Your task to perform on an android device: turn pop-ups on in chrome Image 0: 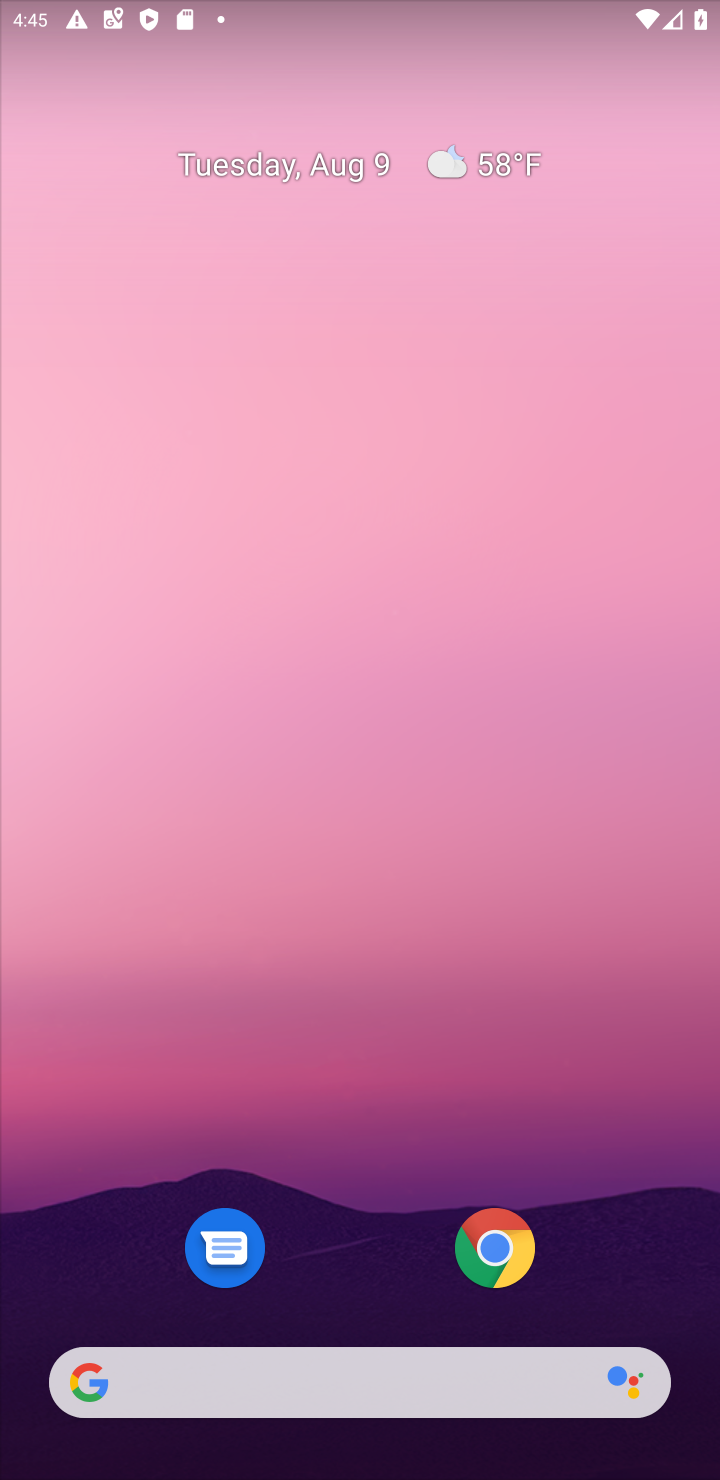
Step 0: click (328, 28)
Your task to perform on an android device: turn pop-ups on in chrome Image 1: 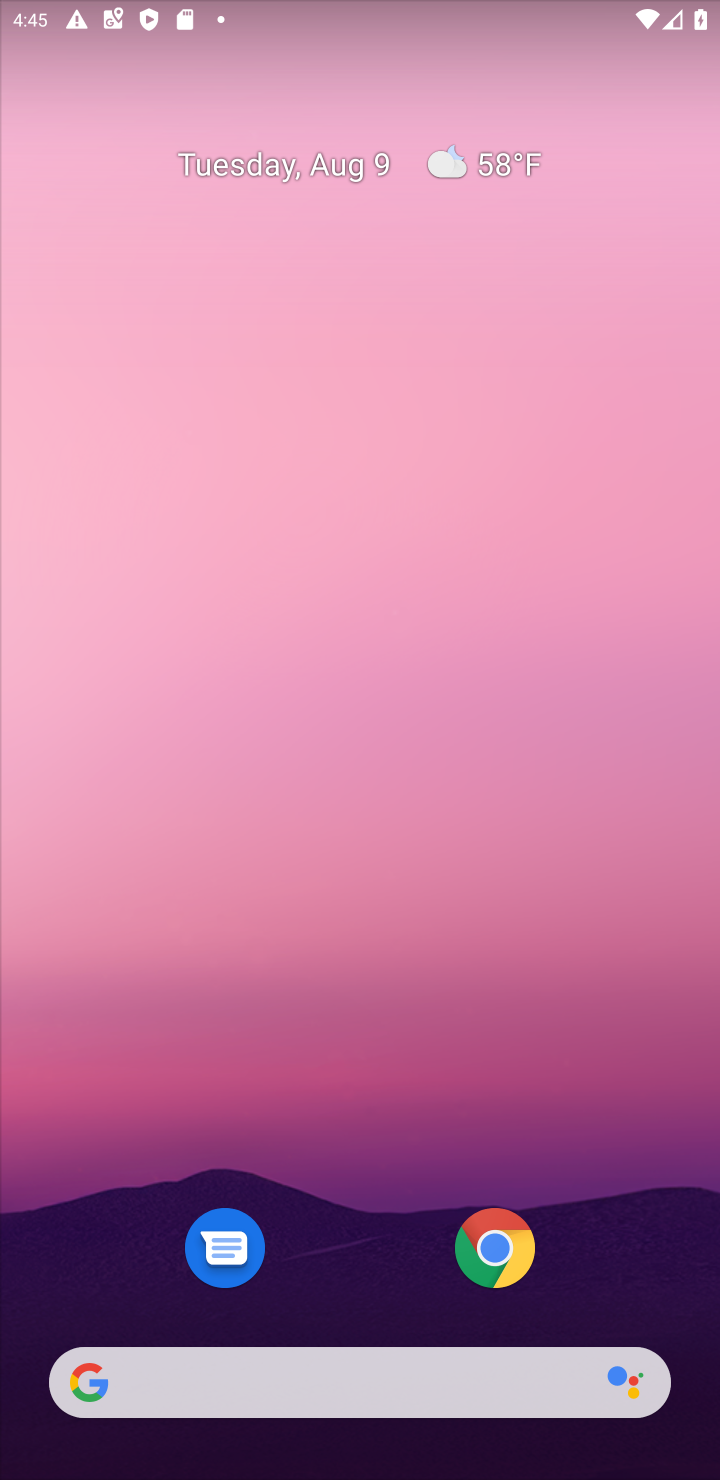
Step 1: drag from (343, 870) to (283, 116)
Your task to perform on an android device: turn pop-ups on in chrome Image 2: 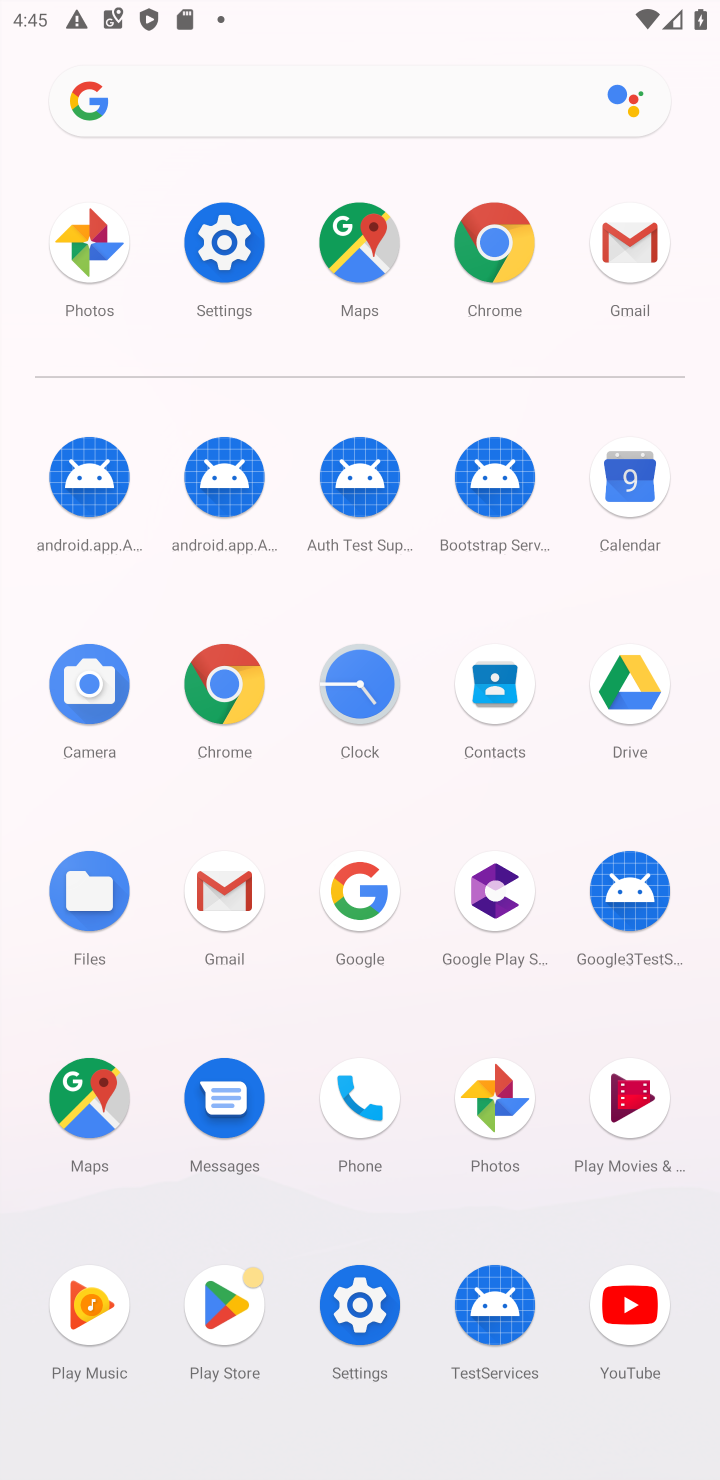
Step 2: click (231, 676)
Your task to perform on an android device: turn pop-ups on in chrome Image 3: 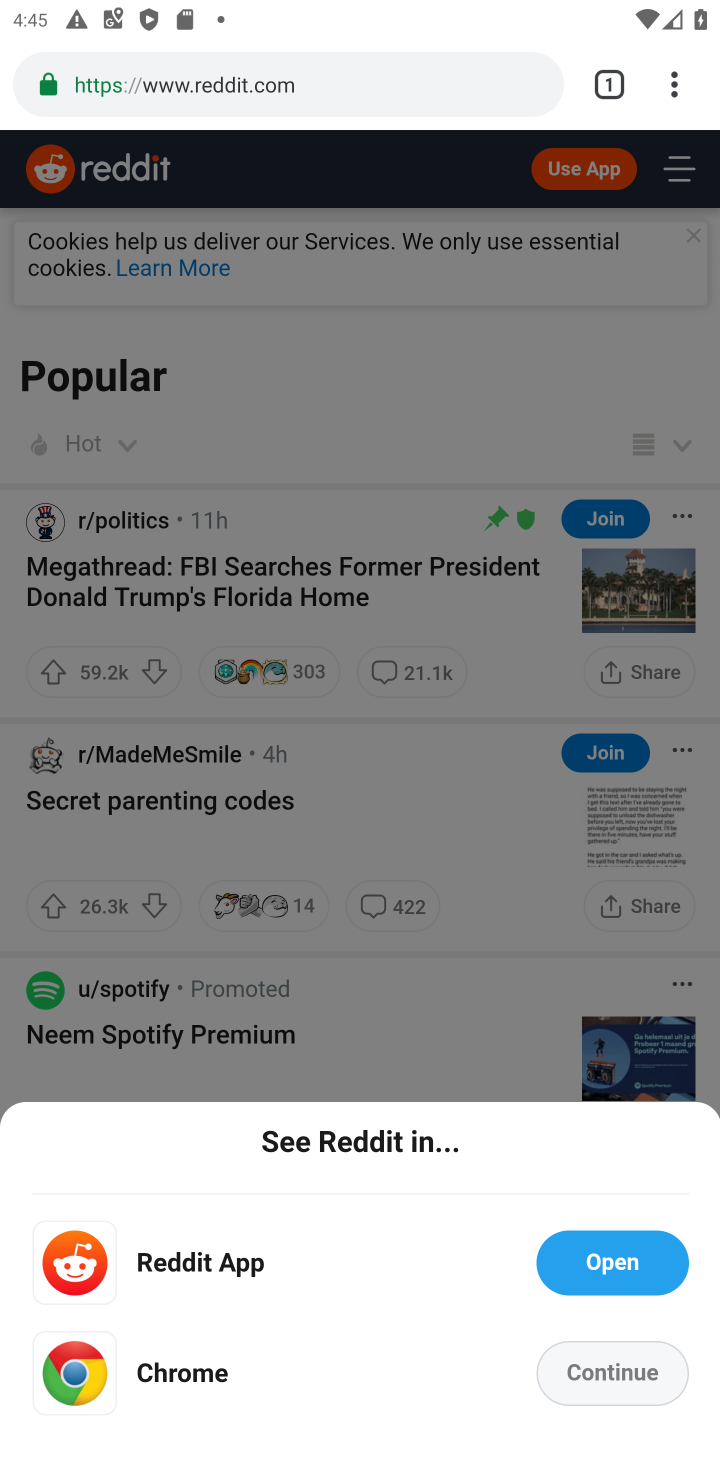
Step 3: drag from (680, 82) to (380, 1107)
Your task to perform on an android device: turn pop-ups on in chrome Image 4: 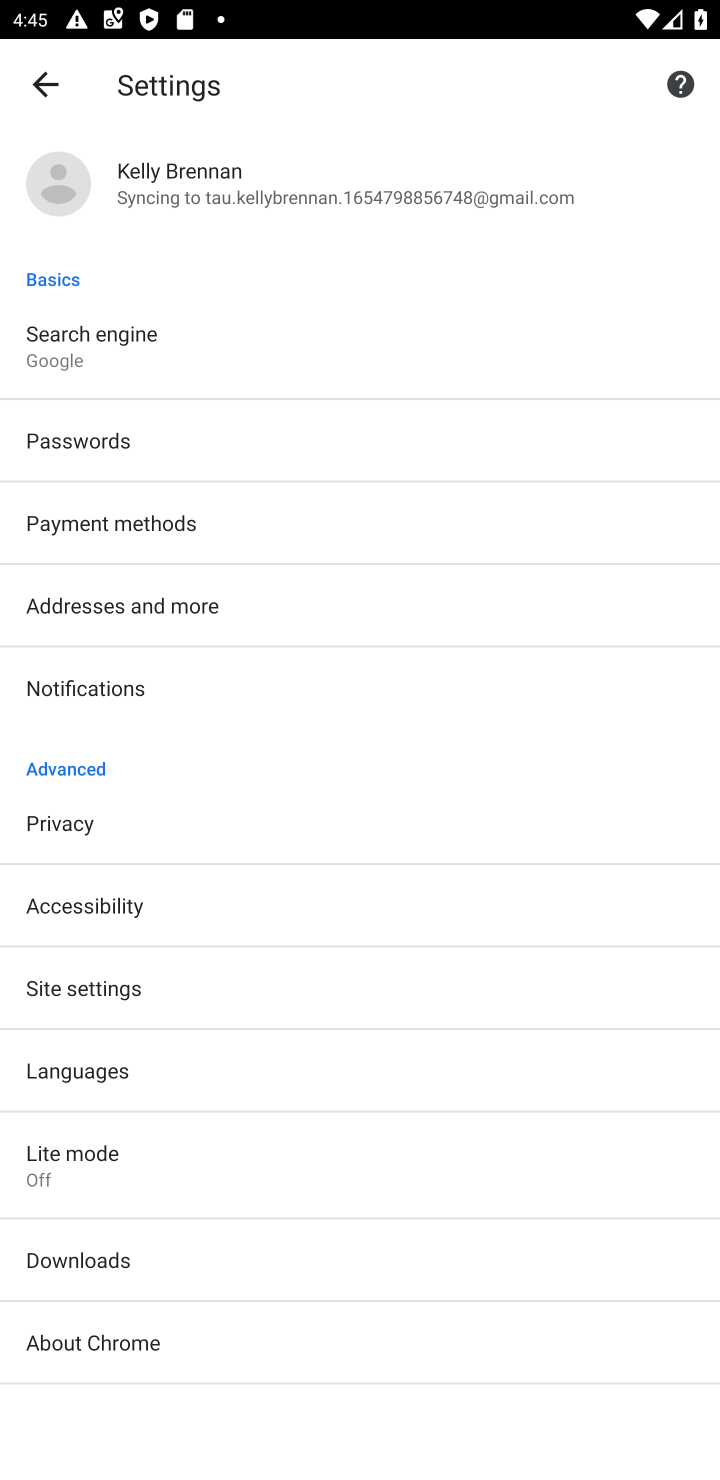
Step 4: click (154, 985)
Your task to perform on an android device: turn pop-ups on in chrome Image 5: 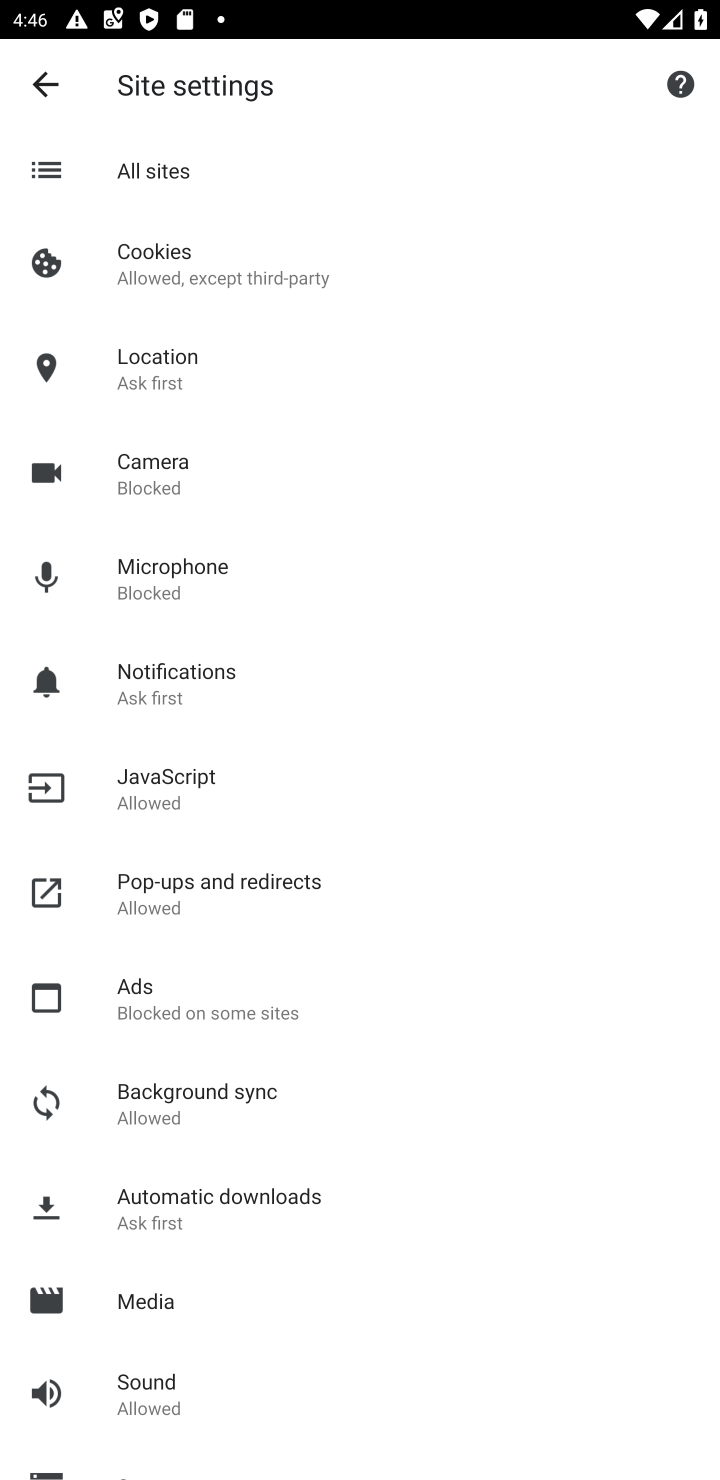
Step 5: click (179, 872)
Your task to perform on an android device: turn pop-ups on in chrome Image 6: 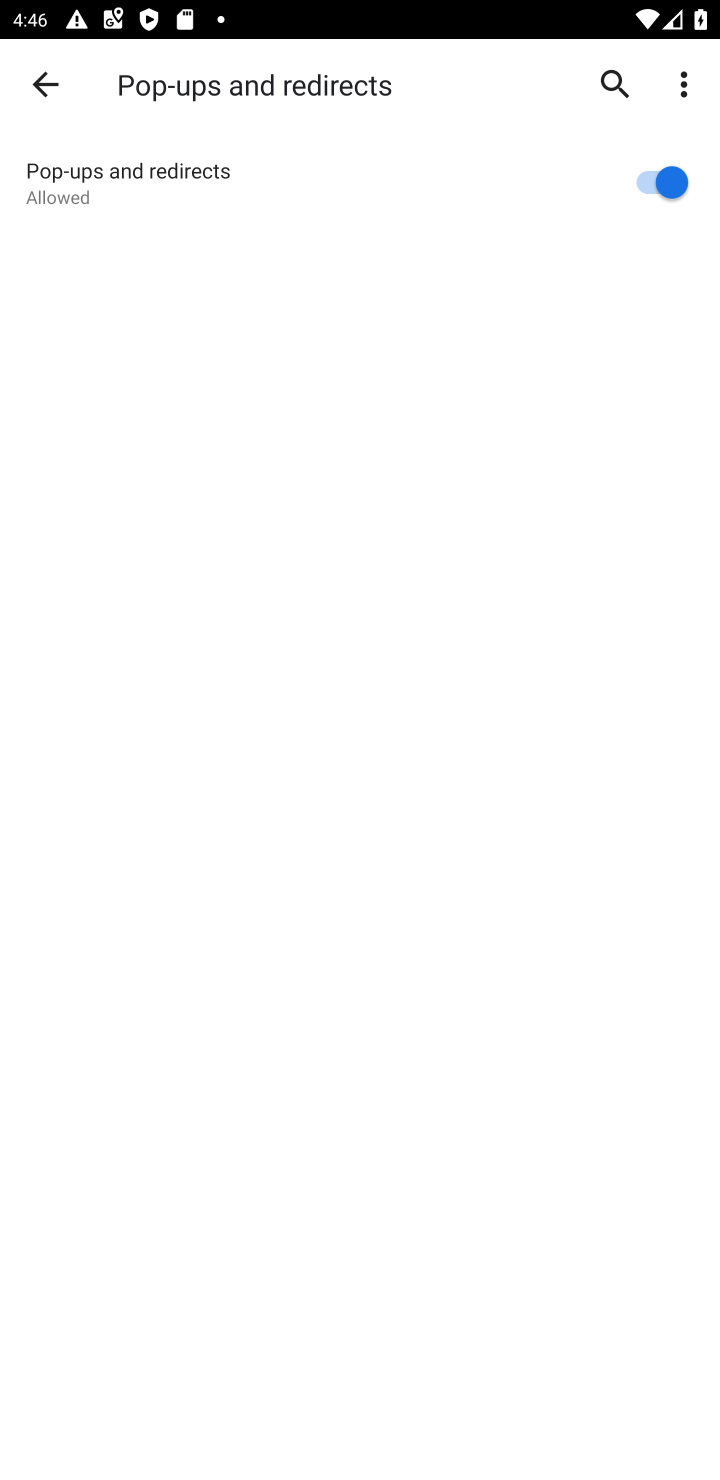
Step 6: task complete